Your task to perform on an android device: Open internet settings Image 0: 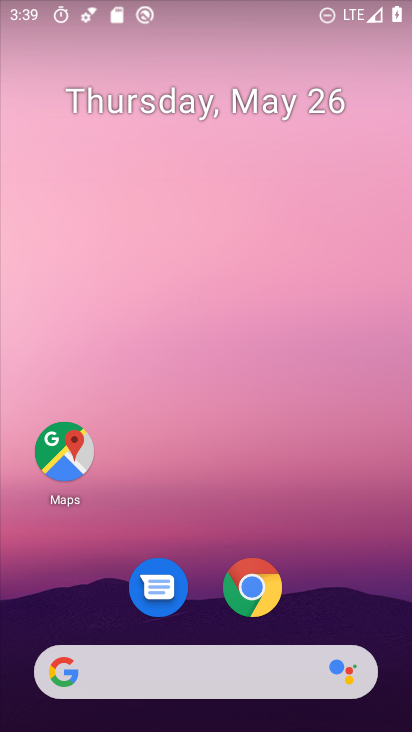
Step 0: drag from (308, 543) to (294, 165)
Your task to perform on an android device: Open internet settings Image 1: 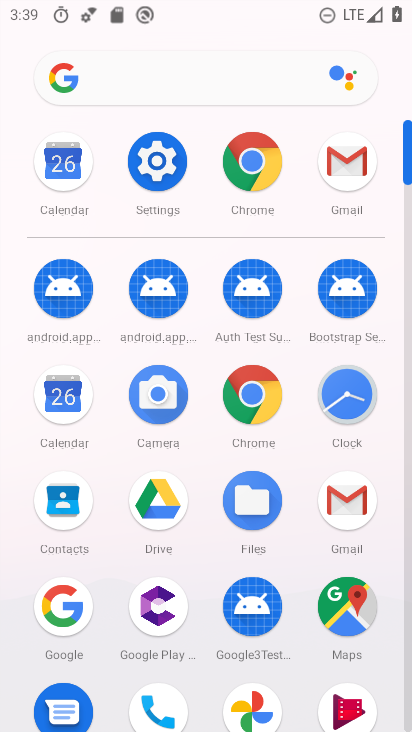
Step 1: click (165, 167)
Your task to perform on an android device: Open internet settings Image 2: 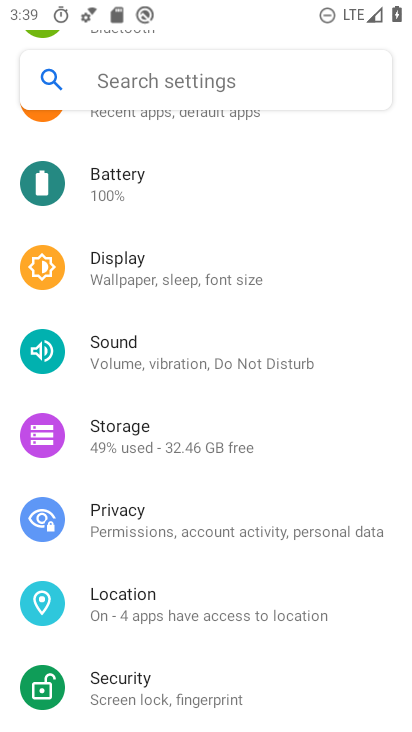
Step 2: drag from (176, 200) to (204, 574)
Your task to perform on an android device: Open internet settings Image 3: 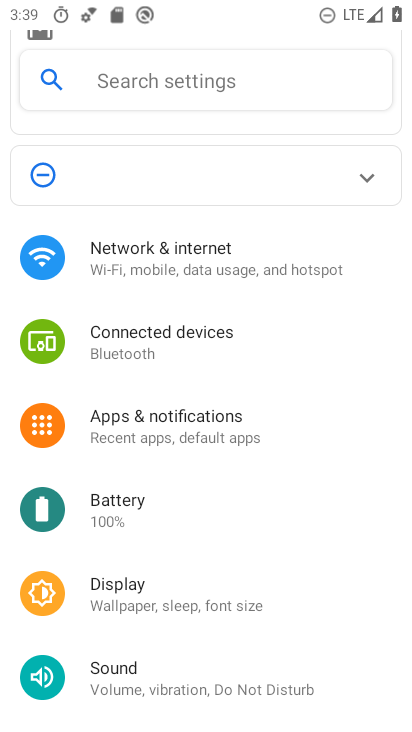
Step 3: click (201, 262)
Your task to perform on an android device: Open internet settings Image 4: 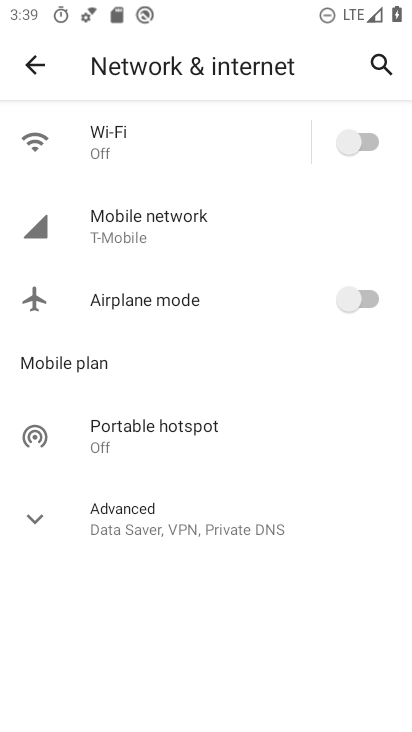
Step 4: click (138, 522)
Your task to perform on an android device: Open internet settings Image 5: 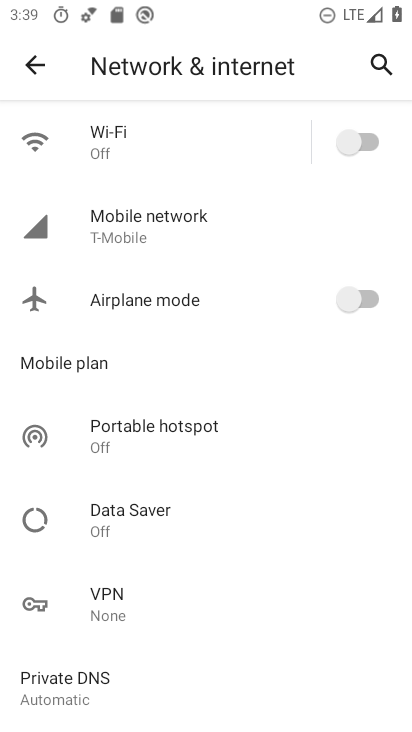
Step 5: task complete